Your task to perform on an android device: visit the assistant section in the google photos Image 0: 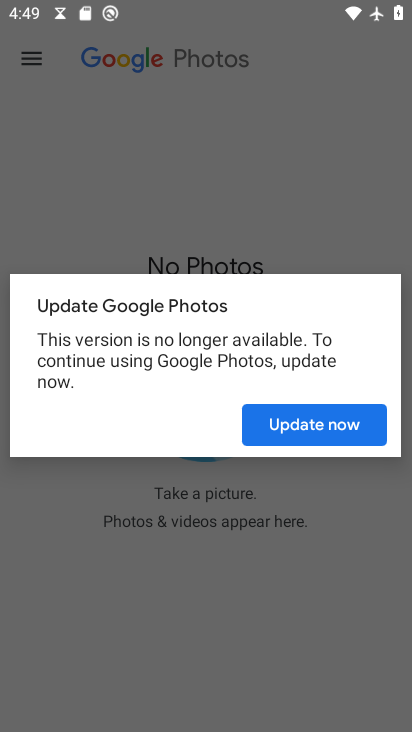
Step 0: press home button
Your task to perform on an android device: visit the assistant section in the google photos Image 1: 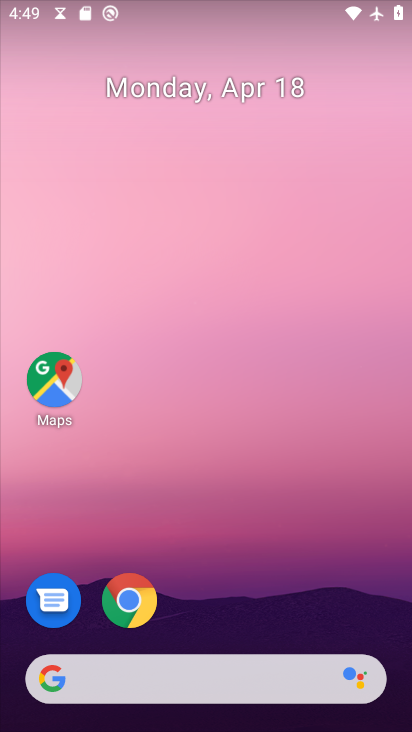
Step 1: drag from (241, 581) to (311, 266)
Your task to perform on an android device: visit the assistant section in the google photos Image 2: 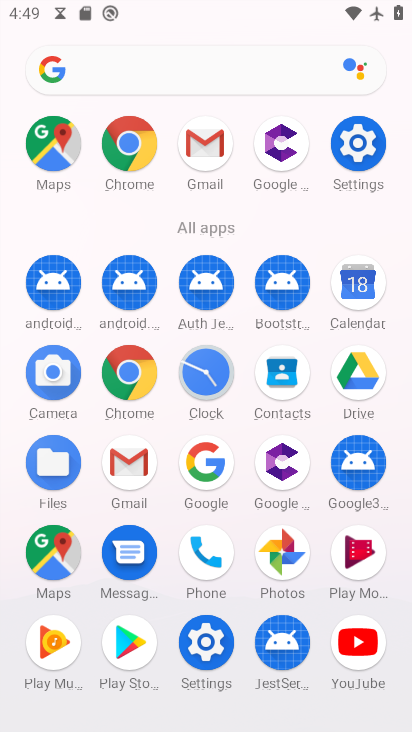
Step 2: click (291, 542)
Your task to perform on an android device: visit the assistant section in the google photos Image 3: 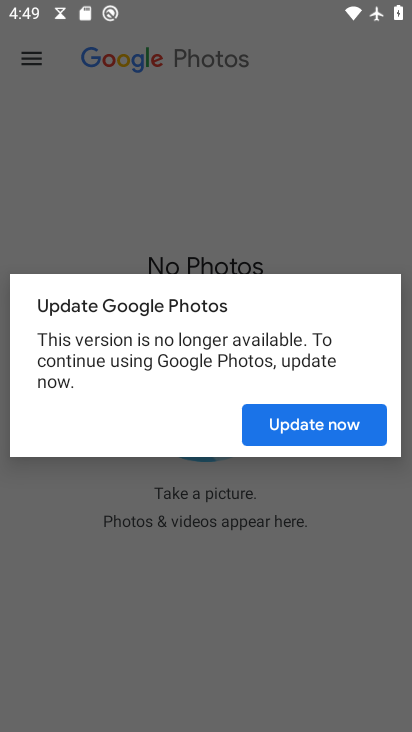
Step 3: click (327, 430)
Your task to perform on an android device: visit the assistant section in the google photos Image 4: 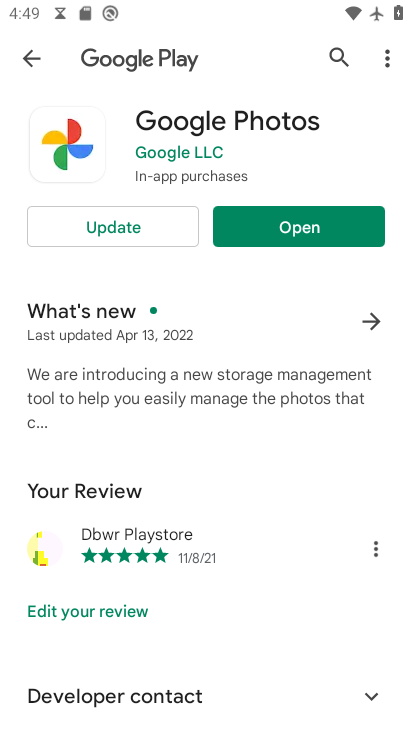
Step 4: click (288, 228)
Your task to perform on an android device: visit the assistant section in the google photos Image 5: 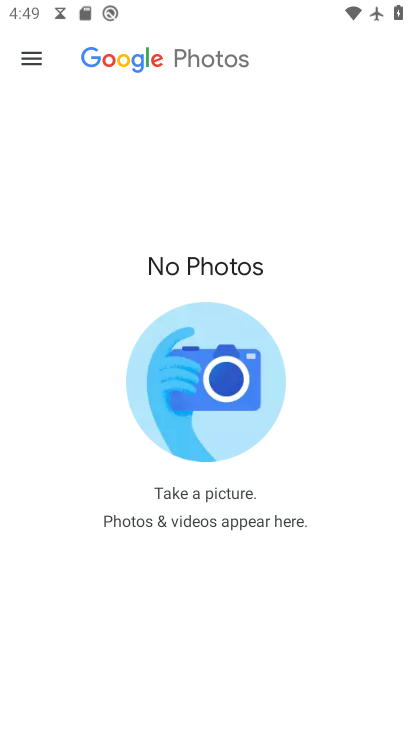
Step 5: click (29, 54)
Your task to perform on an android device: visit the assistant section in the google photos Image 6: 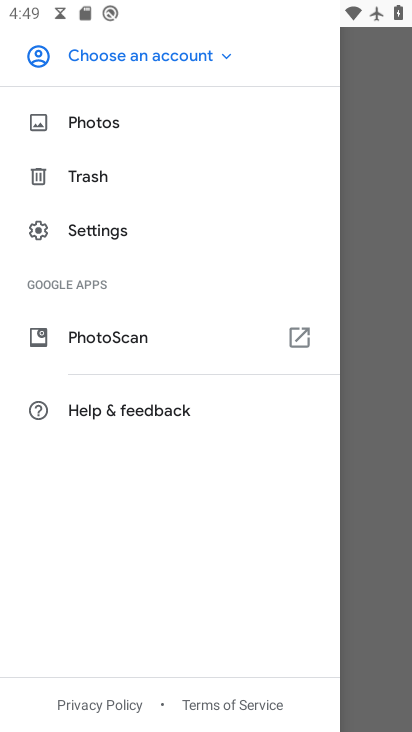
Step 6: click (122, 130)
Your task to perform on an android device: visit the assistant section in the google photos Image 7: 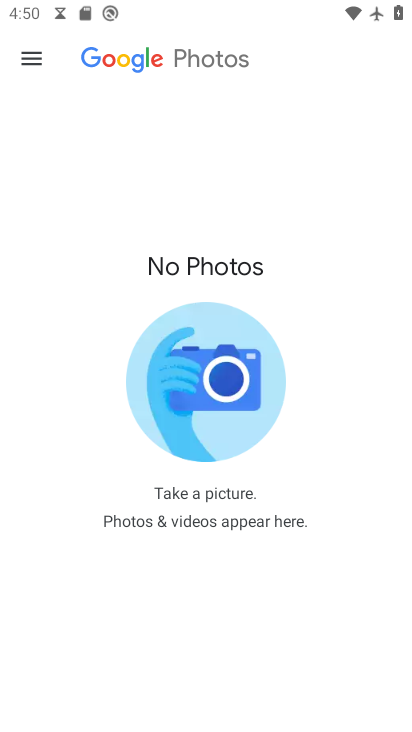
Step 7: click (29, 59)
Your task to perform on an android device: visit the assistant section in the google photos Image 8: 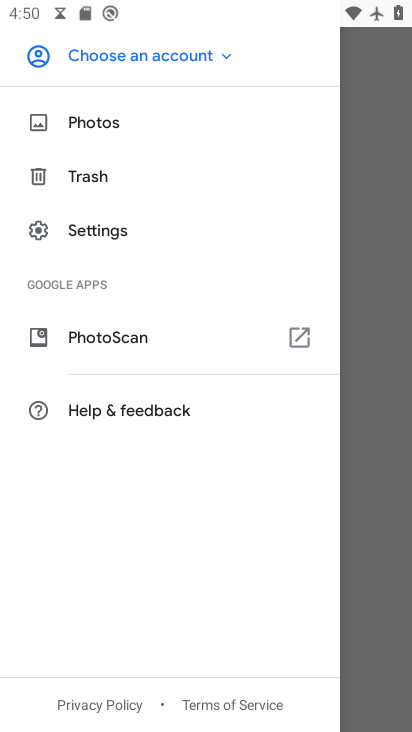
Step 8: task complete